Your task to perform on an android device: Clear the cart on costco. Search for "macbook air" on costco, select the first entry, and add it to the cart. Image 0: 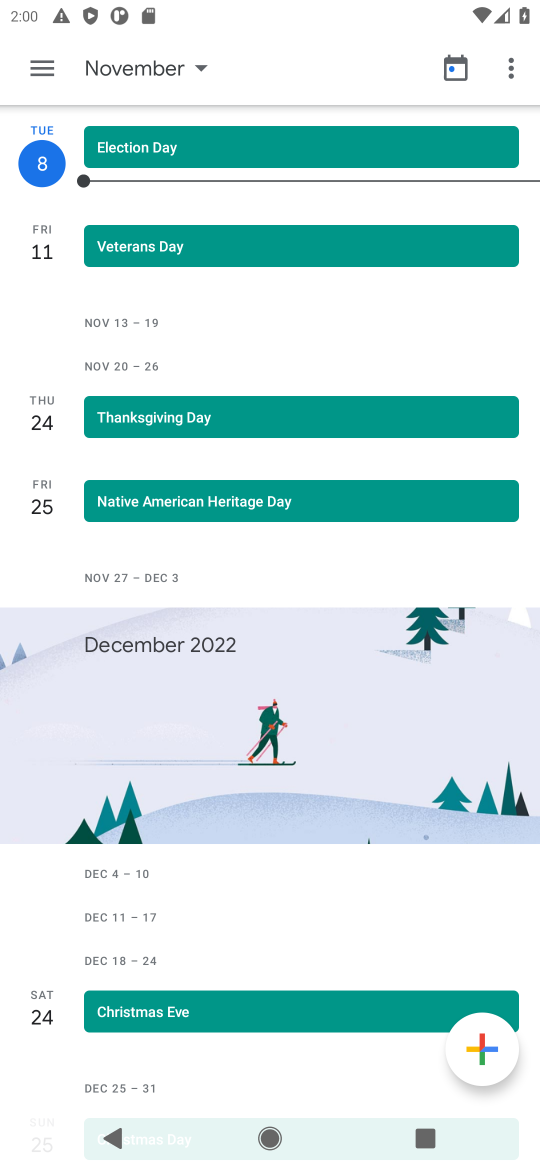
Step 0: press home button
Your task to perform on an android device: Clear the cart on costco. Search for "macbook air" on costco, select the first entry, and add it to the cart. Image 1: 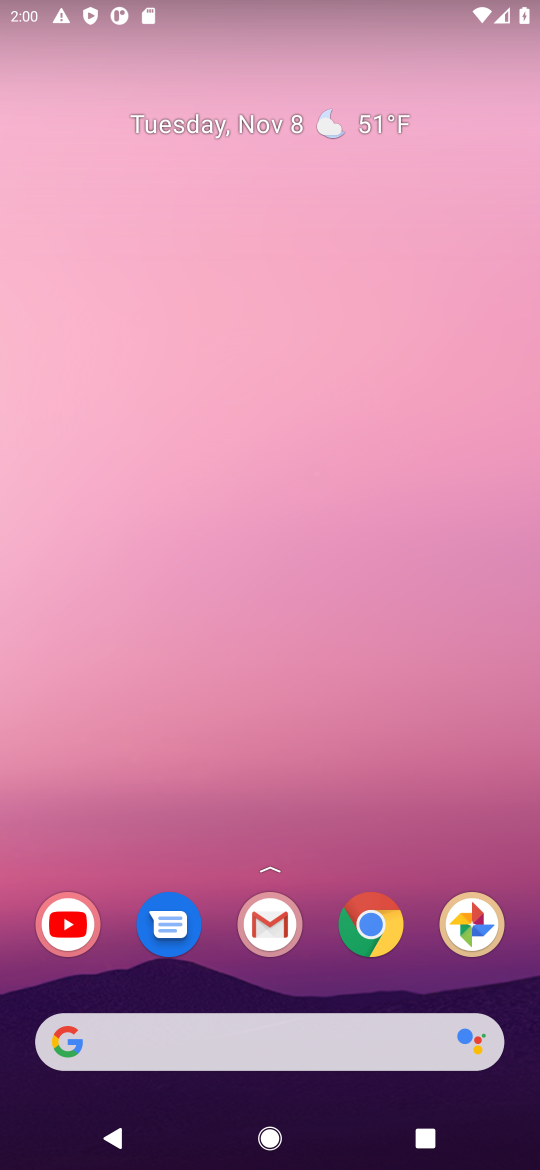
Step 1: click (362, 948)
Your task to perform on an android device: Clear the cart on costco. Search for "macbook air" on costco, select the first entry, and add it to the cart. Image 2: 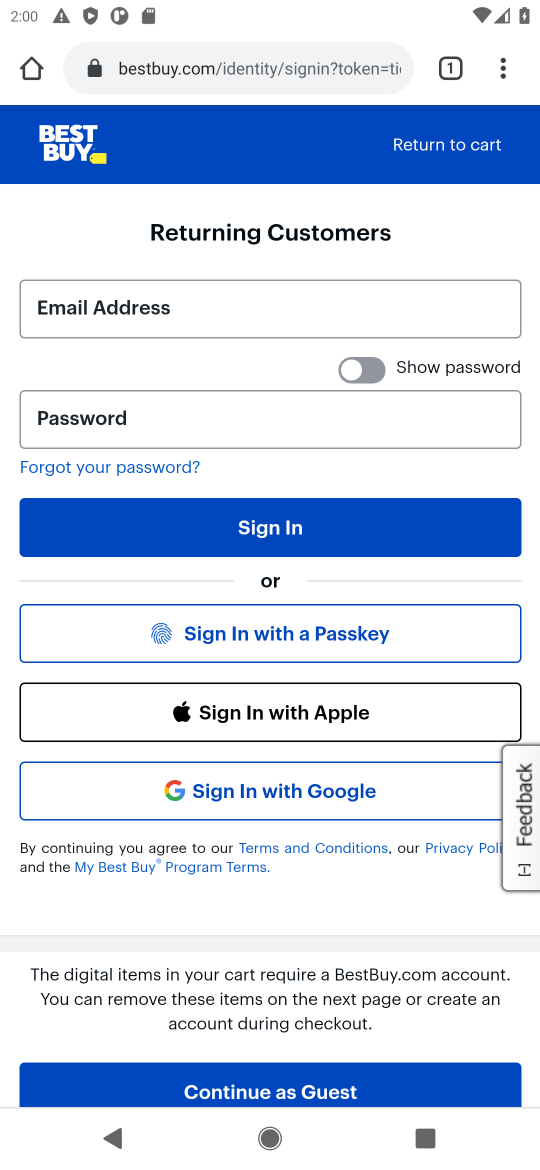
Step 2: click (125, 70)
Your task to perform on an android device: Clear the cart on costco. Search for "macbook air" on costco, select the first entry, and add it to the cart. Image 3: 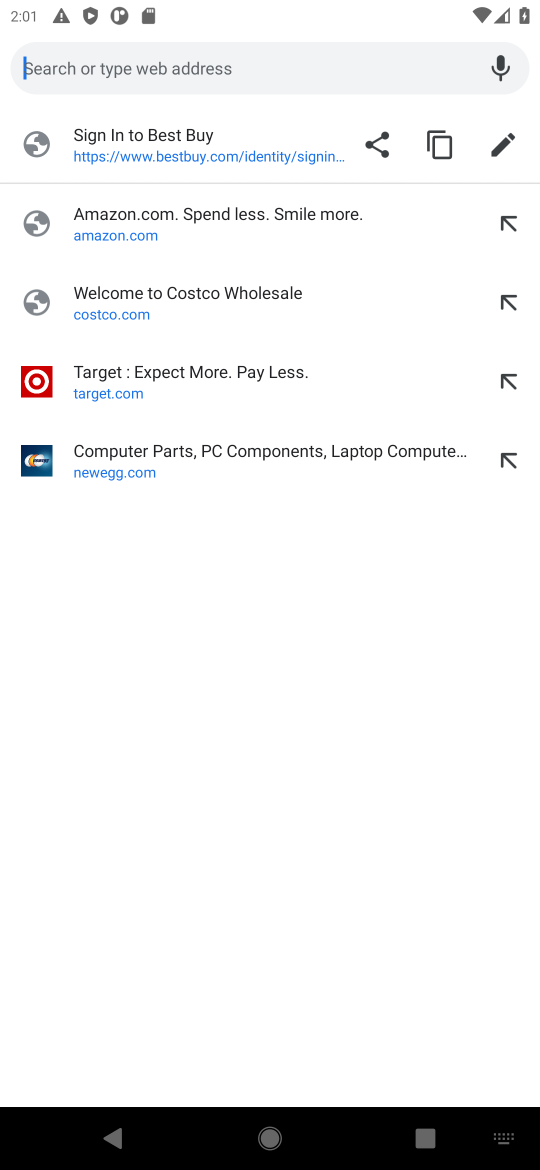
Step 3: click (167, 304)
Your task to perform on an android device: Clear the cart on costco. Search for "macbook air" on costco, select the first entry, and add it to the cart. Image 4: 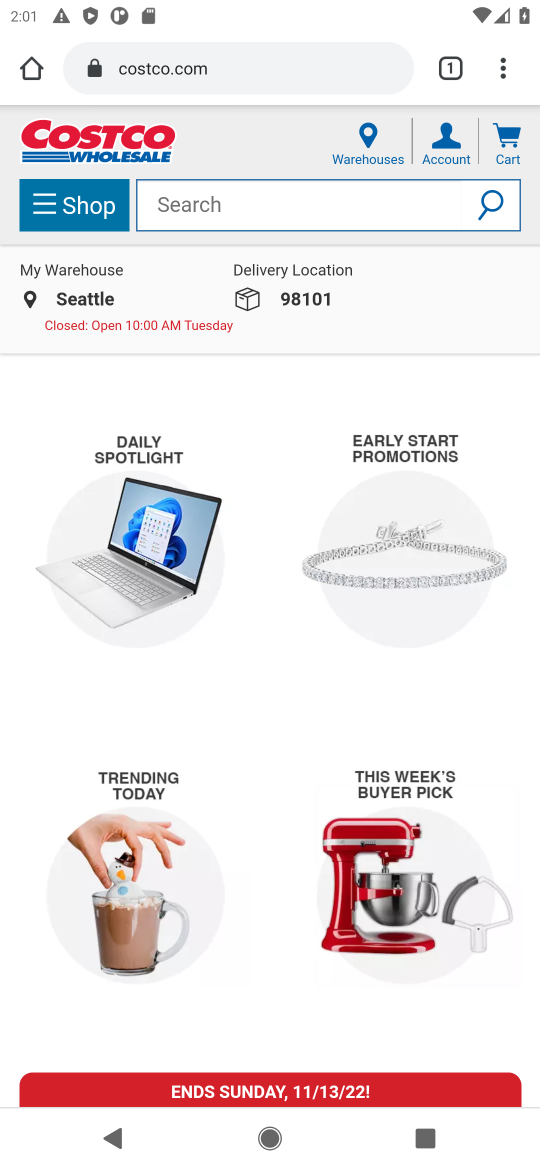
Step 4: click (333, 202)
Your task to perform on an android device: Clear the cart on costco. Search for "macbook air" on costco, select the first entry, and add it to the cart. Image 5: 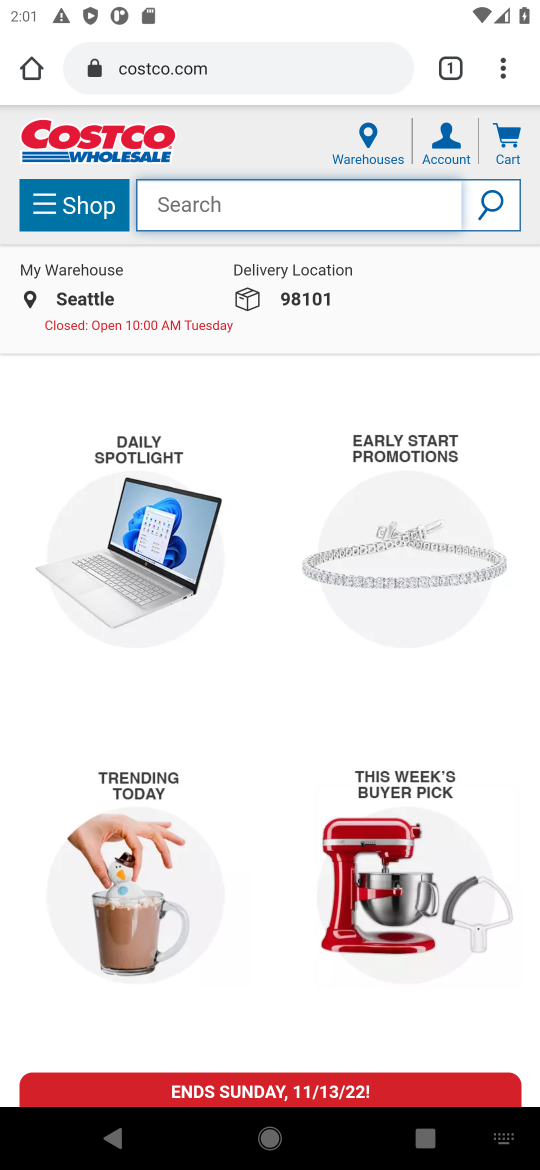
Step 5: type "macbook air"
Your task to perform on an android device: Clear the cart on costco. Search for "macbook air" on costco, select the first entry, and add it to the cart. Image 6: 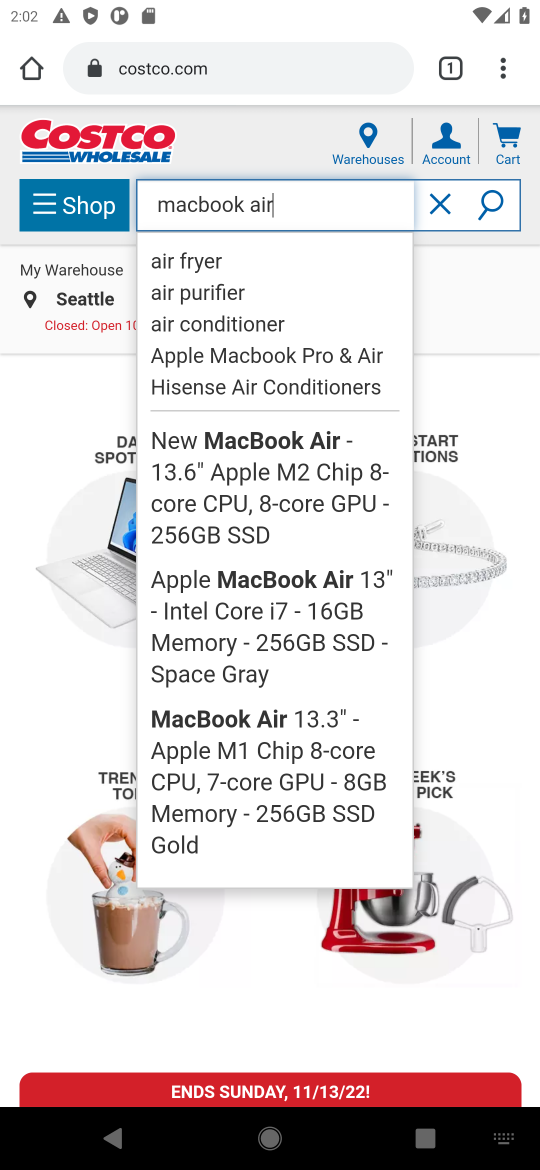
Step 6: click (473, 217)
Your task to perform on an android device: Clear the cart on costco. Search for "macbook air" on costco, select the first entry, and add it to the cart. Image 7: 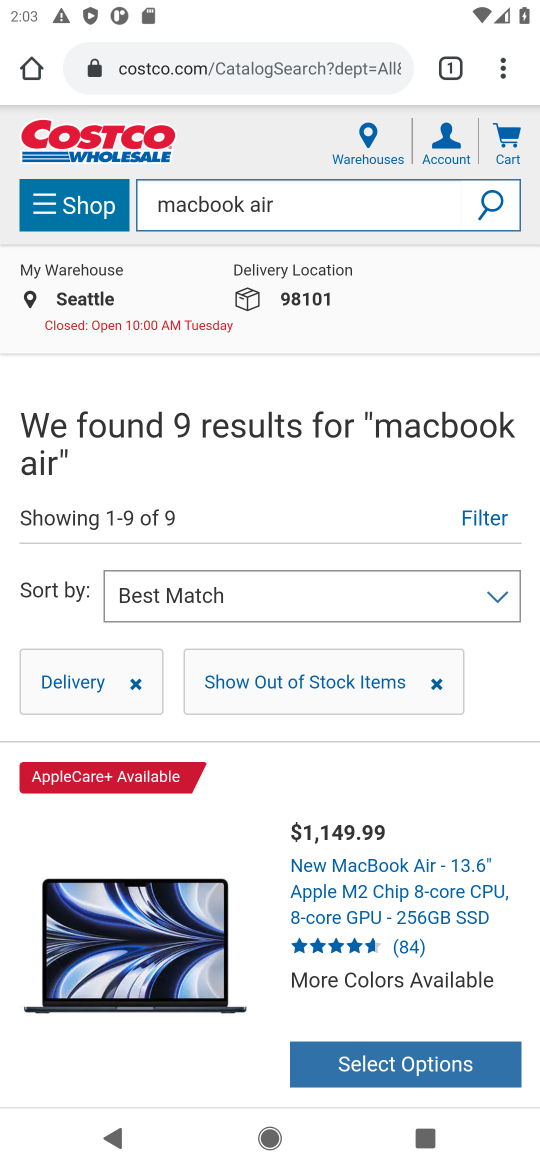
Step 7: click (453, 904)
Your task to perform on an android device: Clear the cart on costco. Search for "macbook air" on costco, select the first entry, and add it to the cart. Image 8: 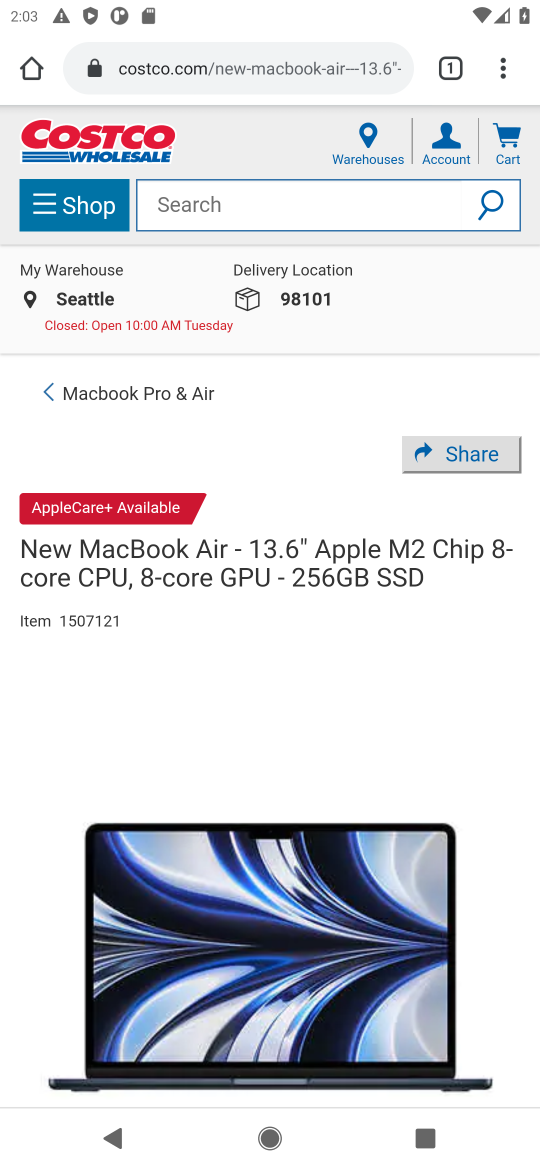
Step 8: drag from (299, 286) to (252, 28)
Your task to perform on an android device: Clear the cart on costco. Search for "macbook air" on costco, select the first entry, and add it to the cart. Image 9: 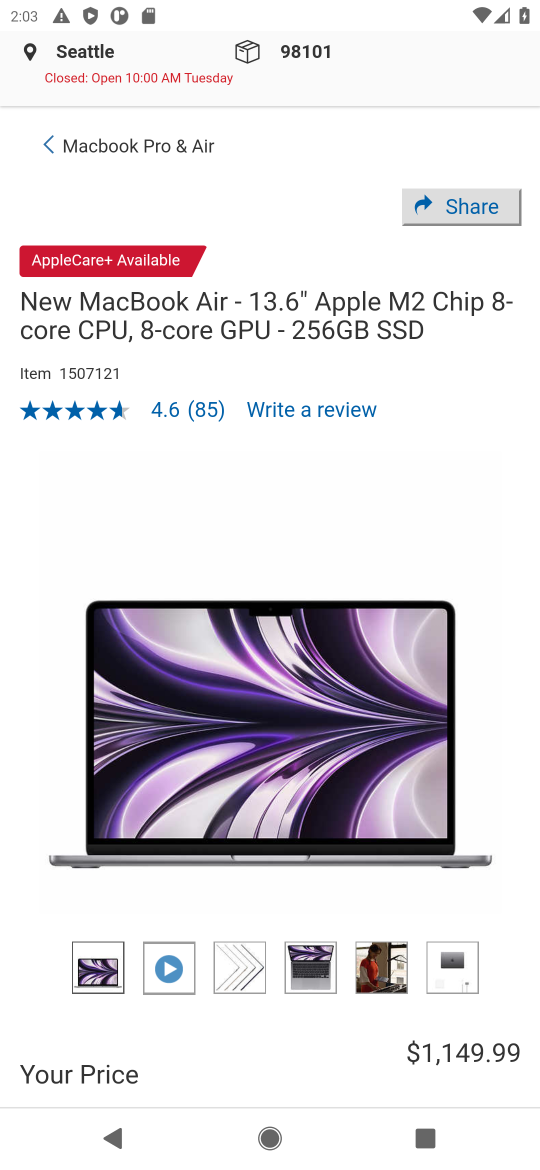
Step 9: click (293, 130)
Your task to perform on an android device: Clear the cart on costco. Search for "macbook air" on costco, select the first entry, and add it to the cart. Image 10: 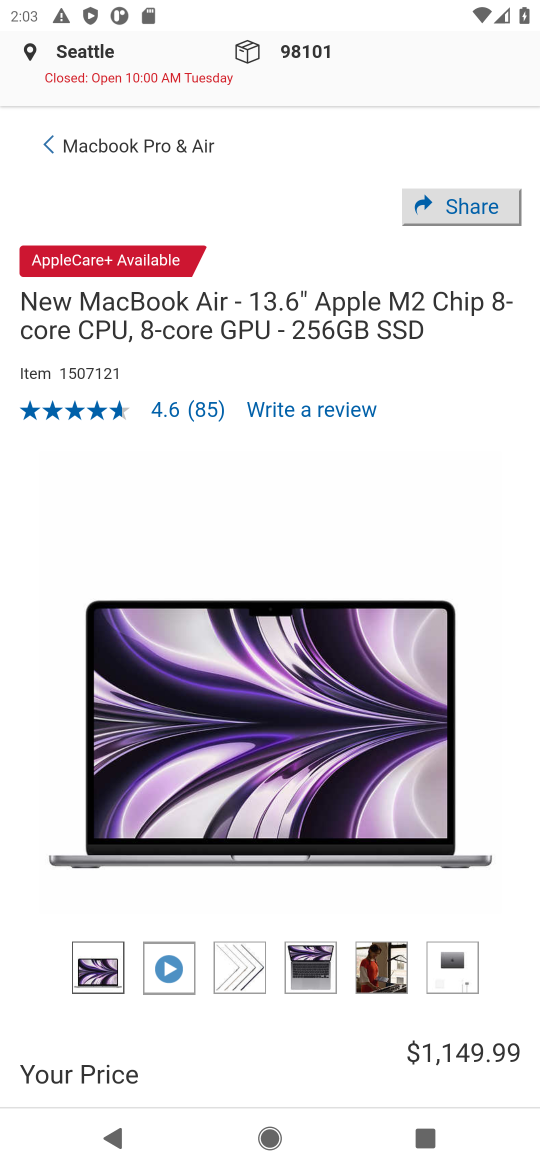
Step 10: drag from (343, 1060) to (379, 190)
Your task to perform on an android device: Clear the cart on costco. Search for "macbook air" on costco, select the first entry, and add it to the cart. Image 11: 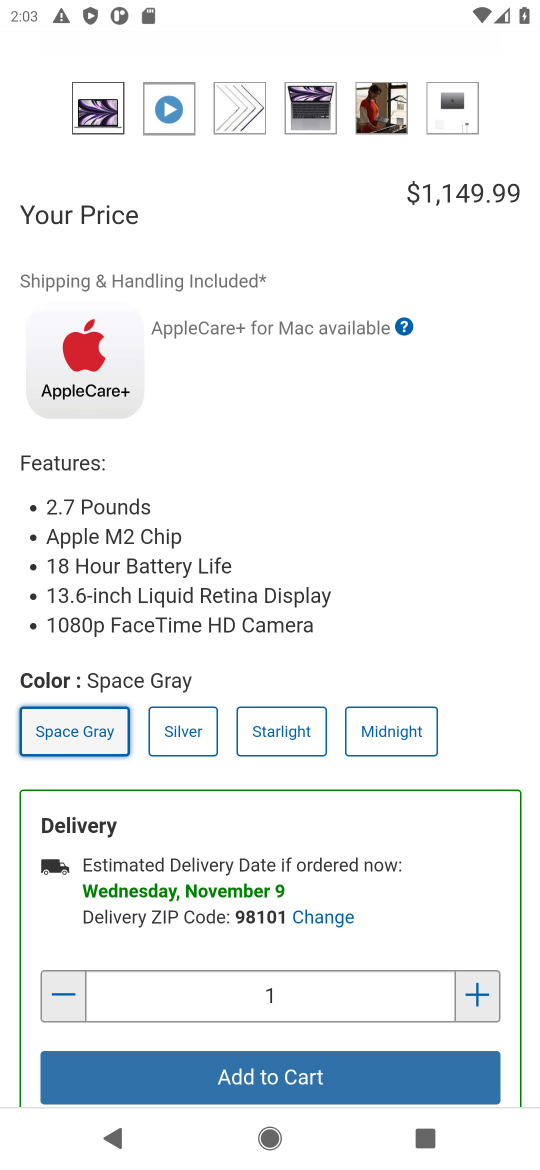
Step 11: drag from (197, 1081) to (530, 382)
Your task to perform on an android device: Clear the cart on costco. Search for "macbook air" on costco, select the first entry, and add it to the cart. Image 12: 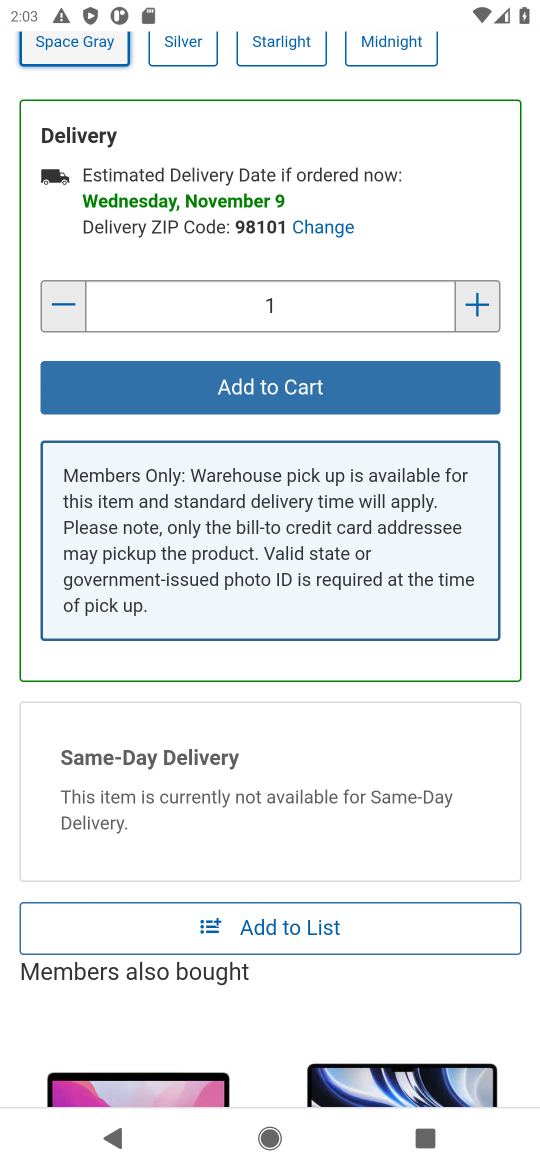
Step 12: click (367, 387)
Your task to perform on an android device: Clear the cart on costco. Search for "macbook air" on costco, select the first entry, and add it to the cart. Image 13: 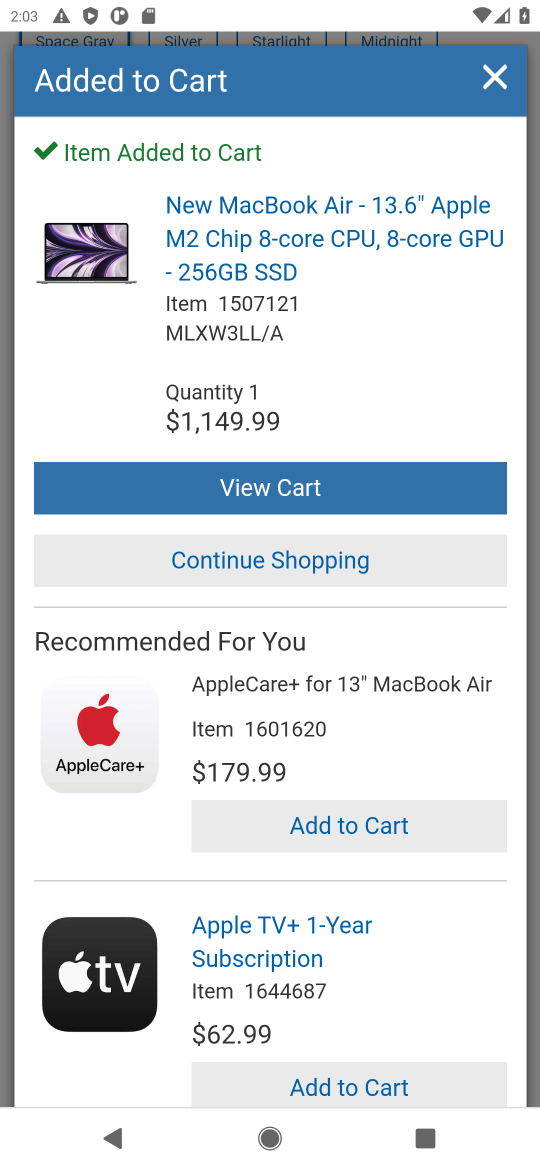
Step 13: task complete